Your task to perform on an android device: read, delete, or share a saved page in the chrome app Image 0: 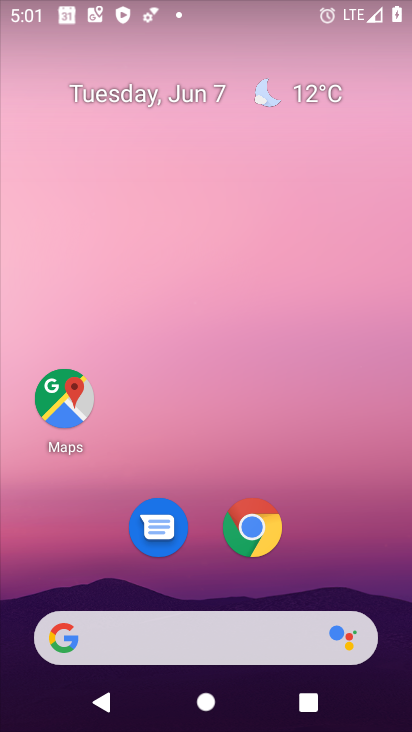
Step 0: click (251, 520)
Your task to perform on an android device: read, delete, or share a saved page in the chrome app Image 1: 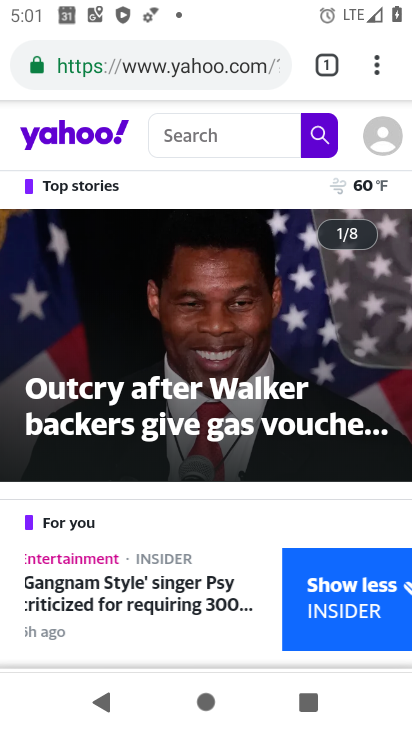
Step 1: click (376, 64)
Your task to perform on an android device: read, delete, or share a saved page in the chrome app Image 2: 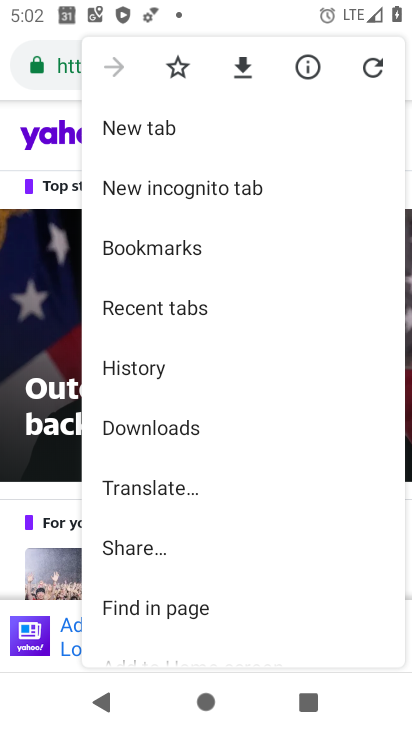
Step 2: click (160, 423)
Your task to perform on an android device: read, delete, or share a saved page in the chrome app Image 3: 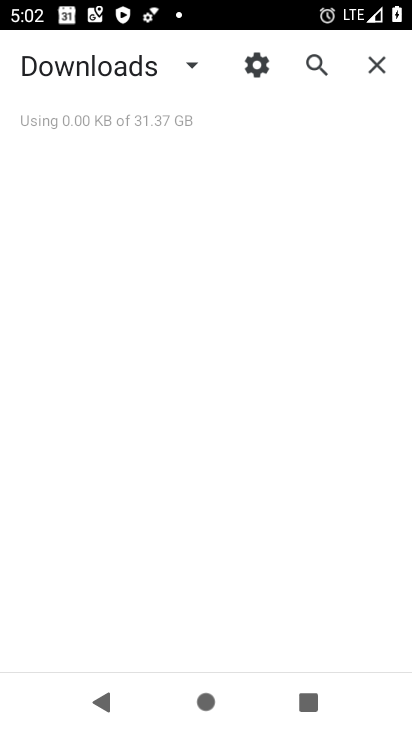
Step 3: click (191, 62)
Your task to perform on an android device: read, delete, or share a saved page in the chrome app Image 4: 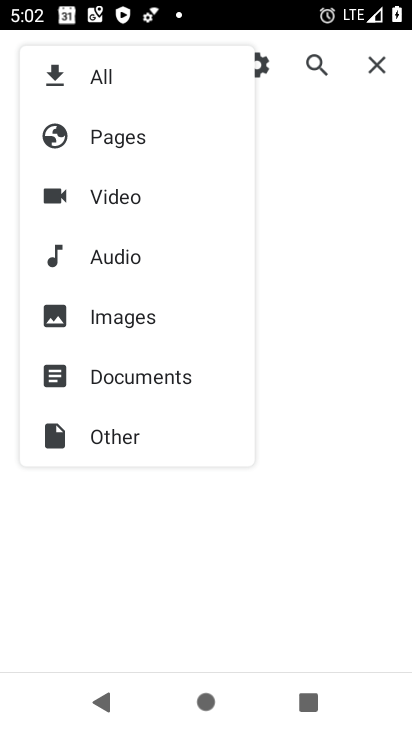
Step 4: click (107, 89)
Your task to perform on an android device: read, delete, or share a saved page in the chrome app Image 5: 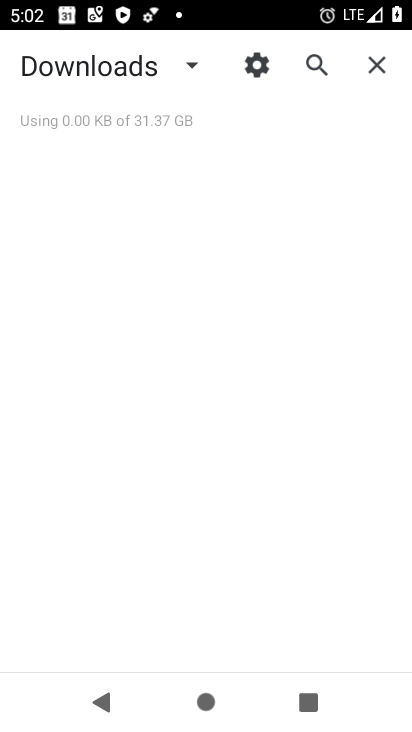
Step 5: task complete